Your task to perform on an android device: turn off javascript in the chrome app Image 0: 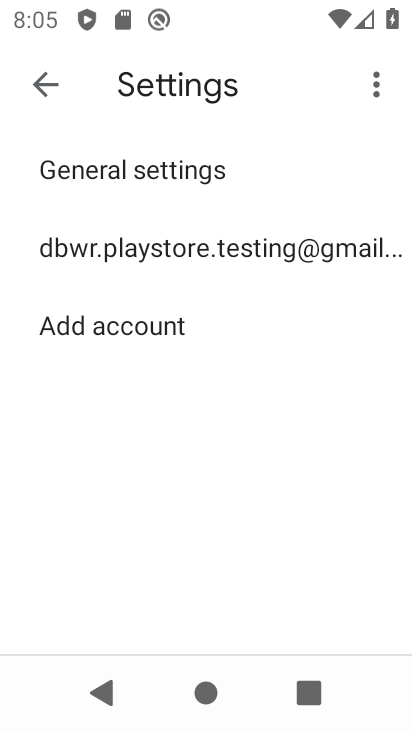
Step 0: click (35, 94)
Your task to perform on an android device: turn off javascript in the chrome app Image 1: 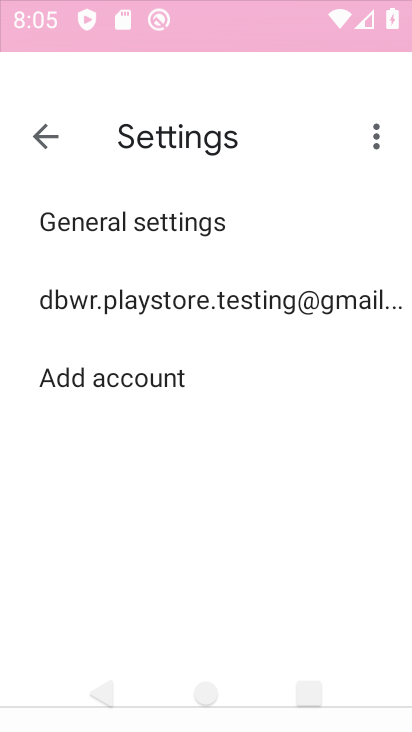
Step 1: click (47, 76)
Your task to perform on an android device: turn off javascript in the chrome app Image 2: 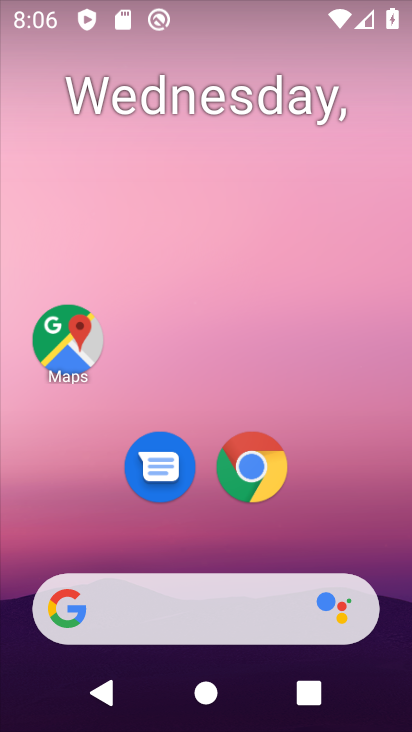
Step 2: drag from (378, 567) to (139, 0)
Your task to perform on an android device: turn off javascript in the chrome app Image 3: 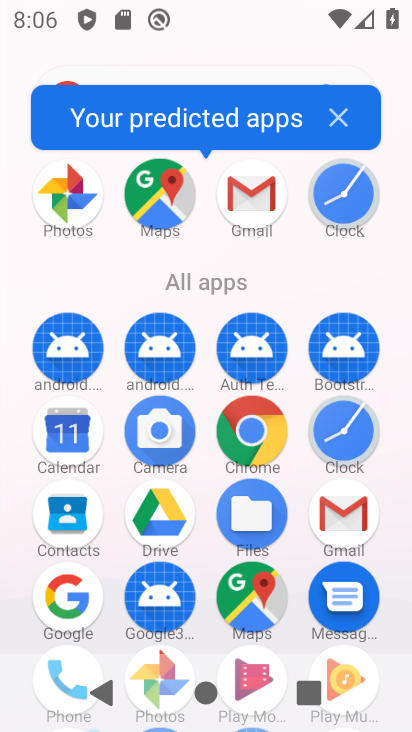
Step 3: click (248, 432)
Your task to perform on an android device: turn off javascript in the chrome app Image 4: 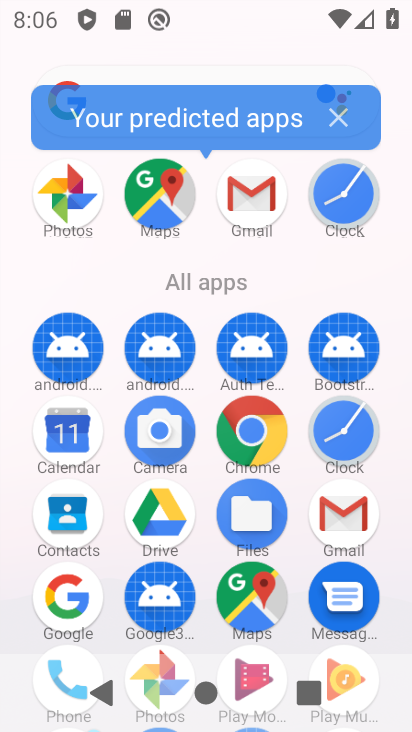
Step 4: click (248, 432)
Your task to perform on an android device: turn off javascript in the chrome app Image 5: 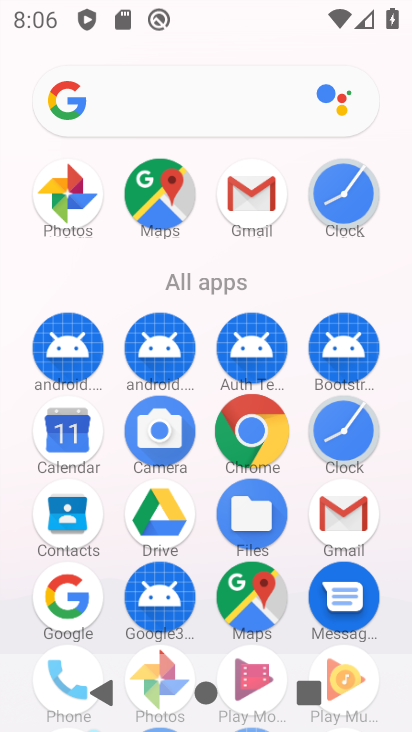
Step 5: click (248, 432)
Your task to perform on an android device: turn off javascript in the chrome app Image 6: 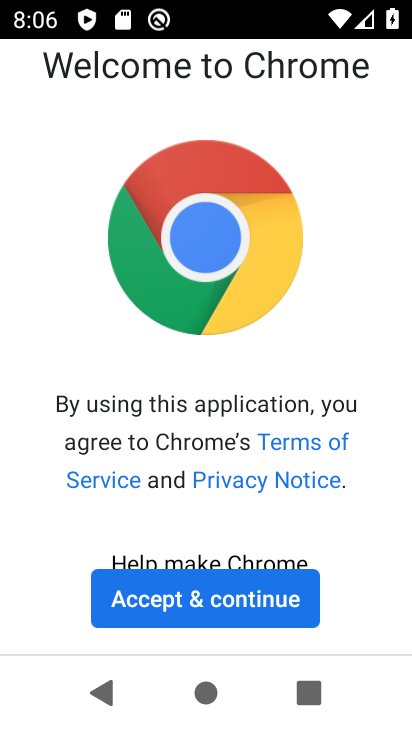
Step 6: click (203, 595)
Your task to perform on an android device: turn off javascript in the chrome app Image 7: 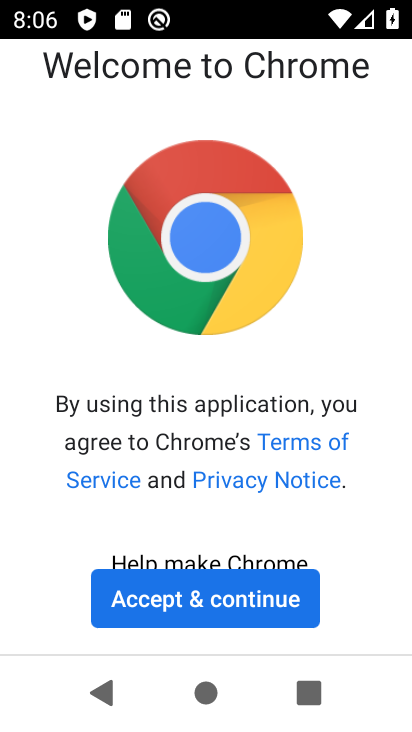
Step 7: click (203, 595)
Your task to perform on an android device: turn off javascript in the chrome app Image 8: 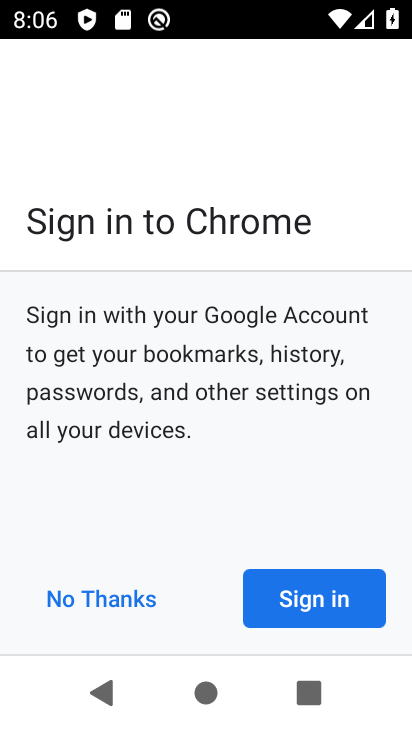
Step 8: click (203, 595)
Your task to perform on an android device: turn off javascript in the chrome app Image 9: 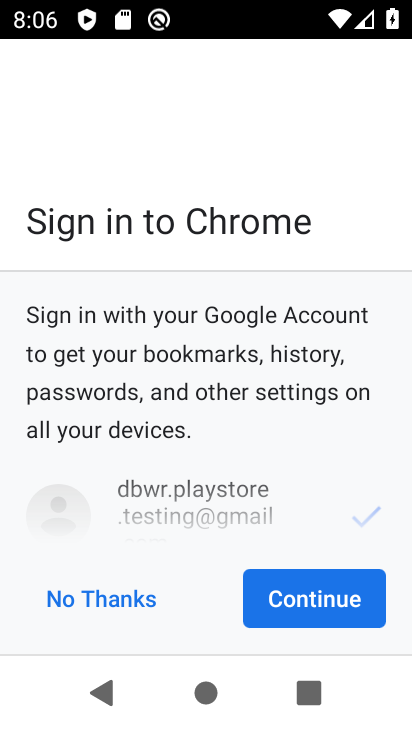
Step 9: click (203, 597)
Your task to perform on an android device: turn off javascript in the chrome app Image 10: 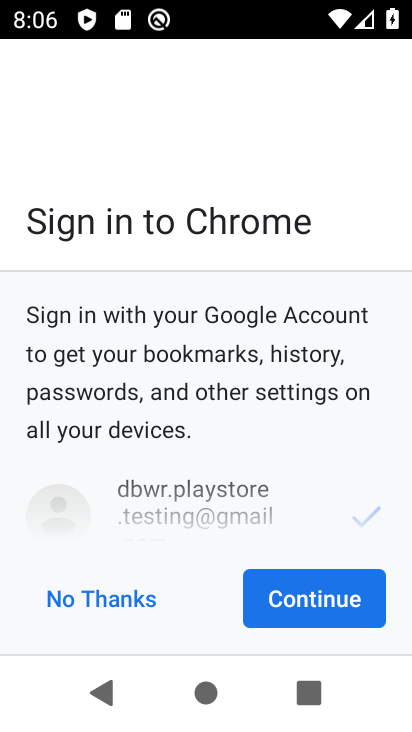
Step 10: click (330, 594)
Your task to perform on an android device: turn off javascript in the chrome app Image 11: 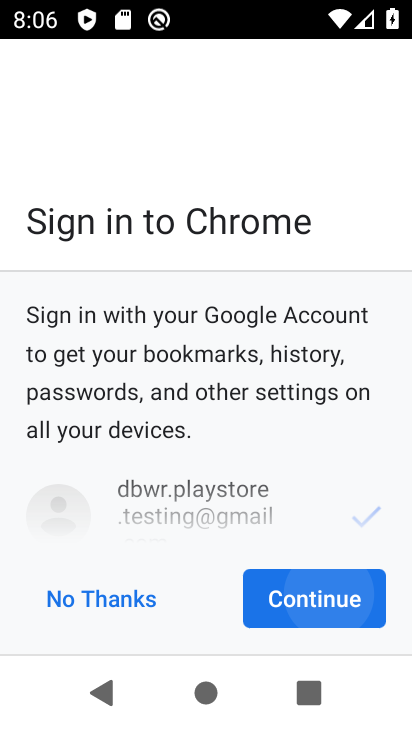
Step 11: click (330, 594)
Your task to perform on an android device: turn off javascript in the chrome app Image 12: 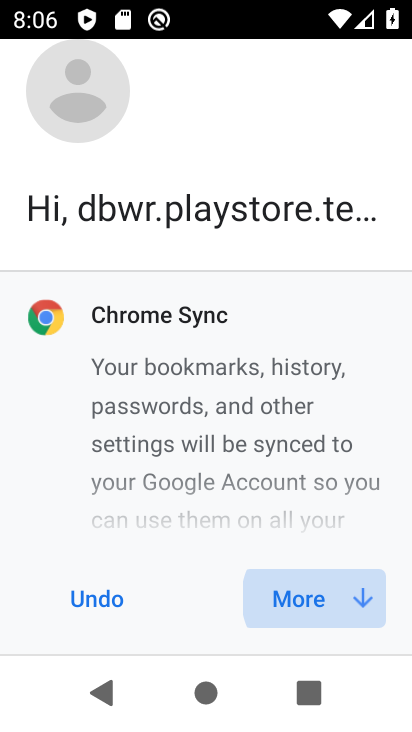
Step 12: click (330, 594)
Your task to perform on an android device: turn off javascript in the chrome app Image 13: 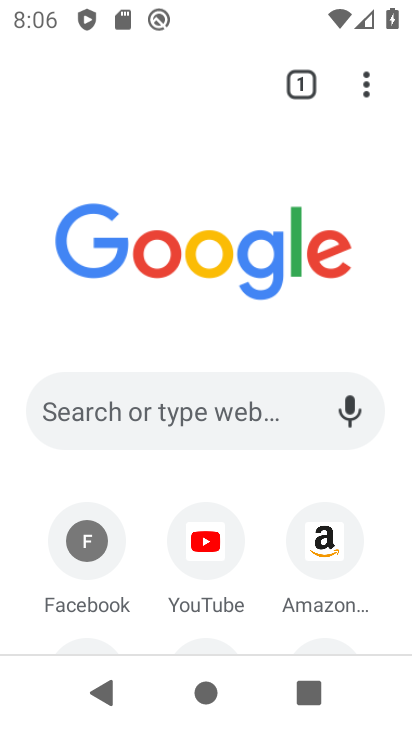
Step 13: drag from (367, 83) to (92, 522)
Your task to perform on an android device: turn off javascript in the chrome app Image 14: 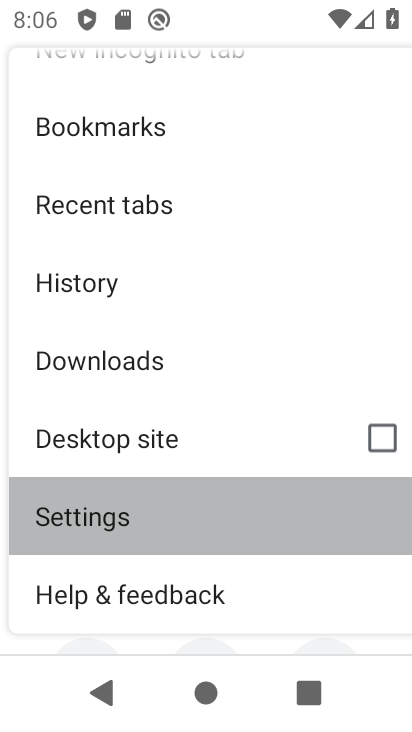
Step 14: click (92, 522)
Your task to perform on an android device: turn off javascript in the chrome app Image 15: 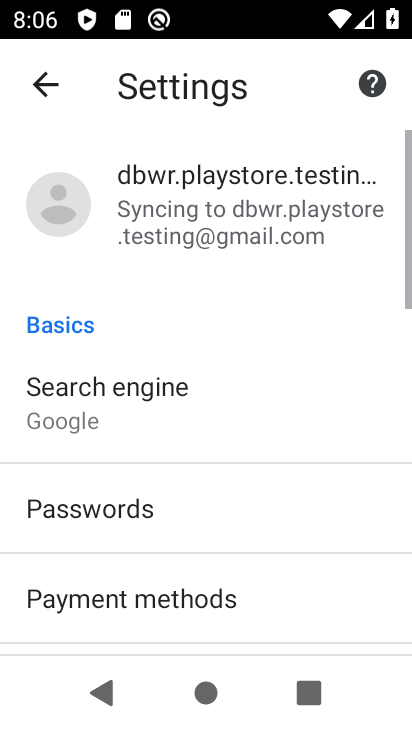
Step 15: drag from (174, 608) to (228, 13)
Your task to perform on an android device: turn off javascript in the chrome app Image 16: 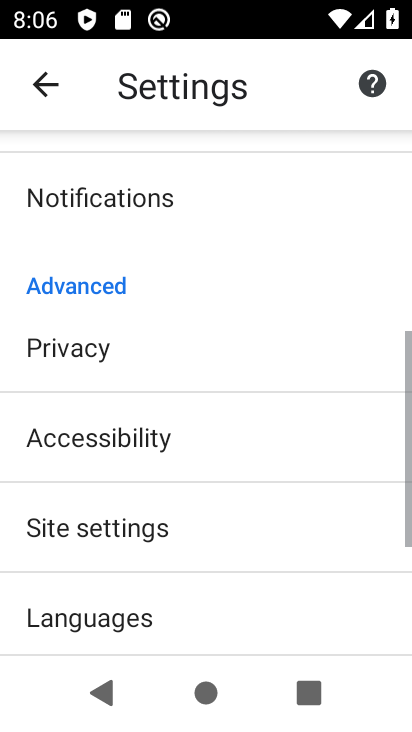
Step 16: drag from (176, 419) to (181, 16)
Your task to perform on an android device: turn off javascript in the chrome app Image 17: 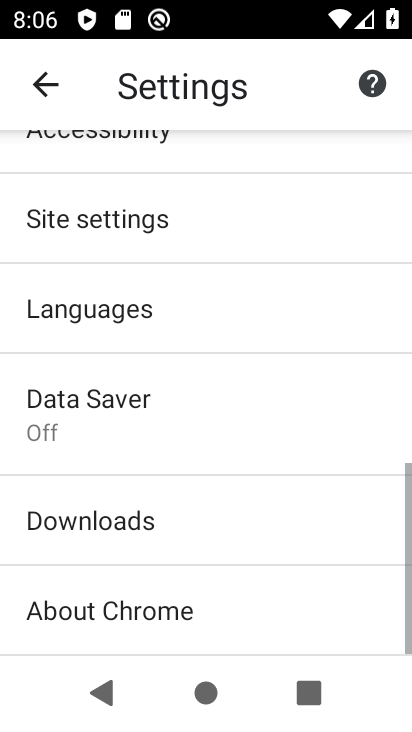
Step 17: drag from (203, 403) to (146, 10)
Your task to perform on an android device: turn off javascript in the chrome app Image 18: 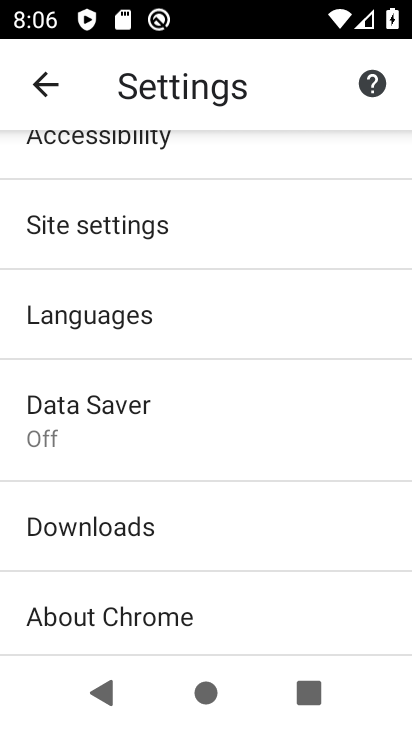
Step 18: click (82, 216)
Your task to perform on an android device: turn off javascript in the chrome app Image 19: 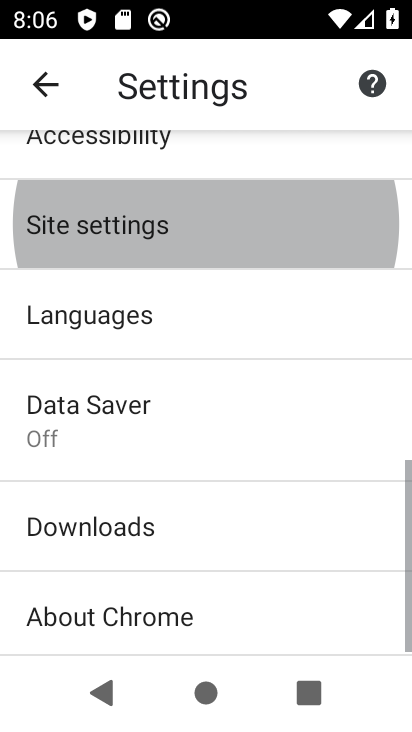
Step 19: click (82, 216)
Your task to perform on an android device: turn off javascript in the chrome app Image 20: 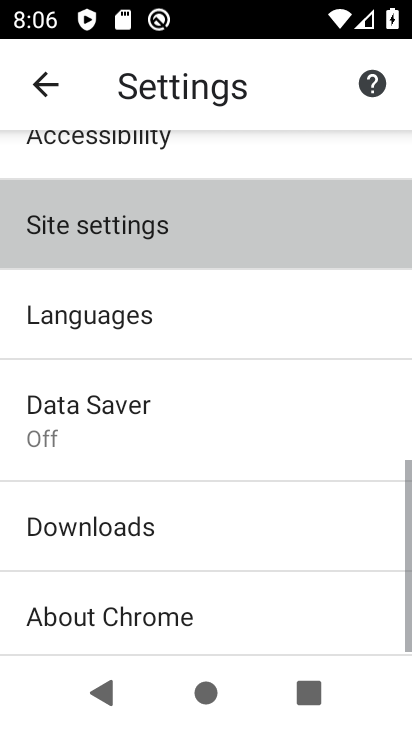
Step 20: click (82, 216)
Your task to perform on an android device: turn off javascript in the chrome app Image 21: 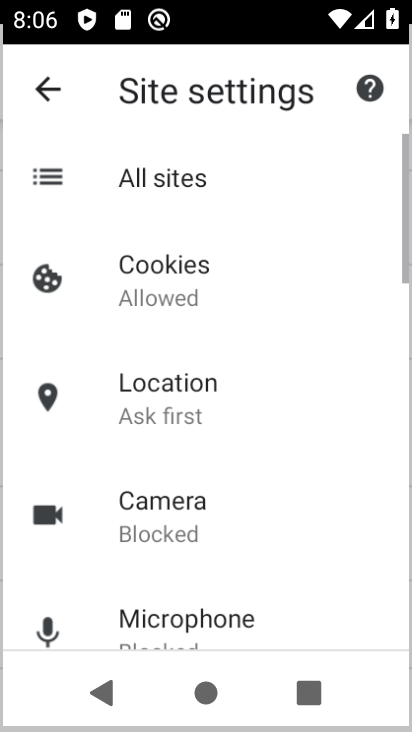
Step 21: click (83, 214)
Your task to perform on an android device: turn off javascript in the chrome app Image 22: 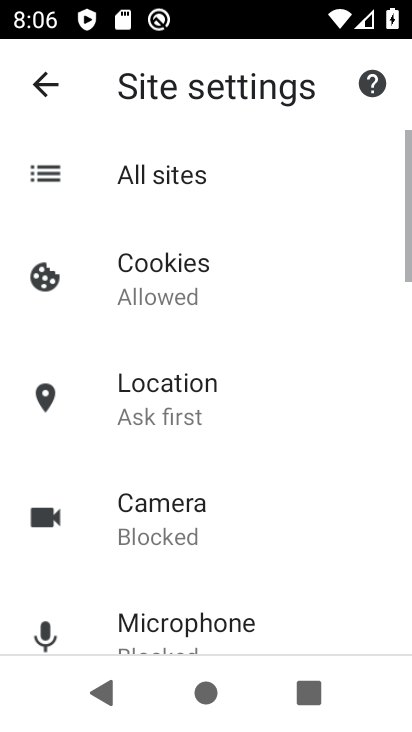
Step 22: click (83, 214)
Your task to perform on an android device: turn off javascript in the chrome app Image 23: 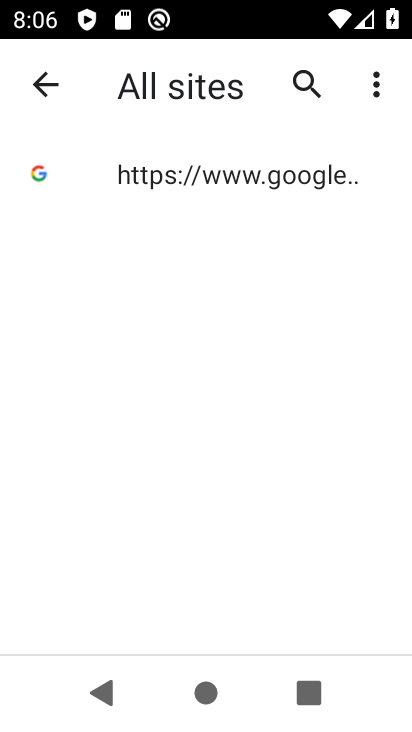
Step 23: click (43, 81)
Your task to perform on an android device: turn off javascript in the chrome app Image 24: 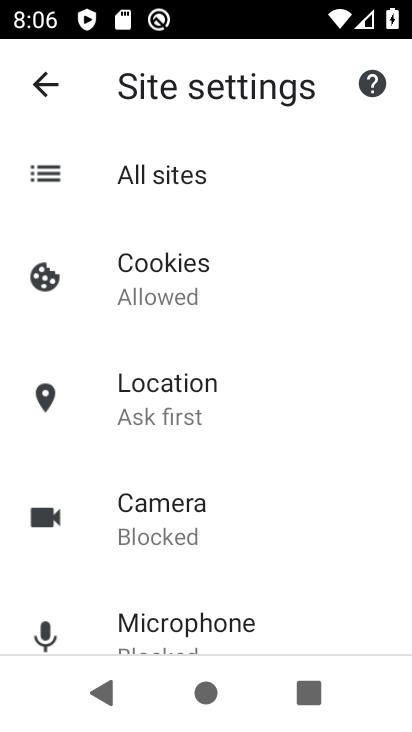
Step 24: drag from (176, 522) to (98, 176)
Your task to perform on an android device: turn off javascript in the chrome app Image 25: 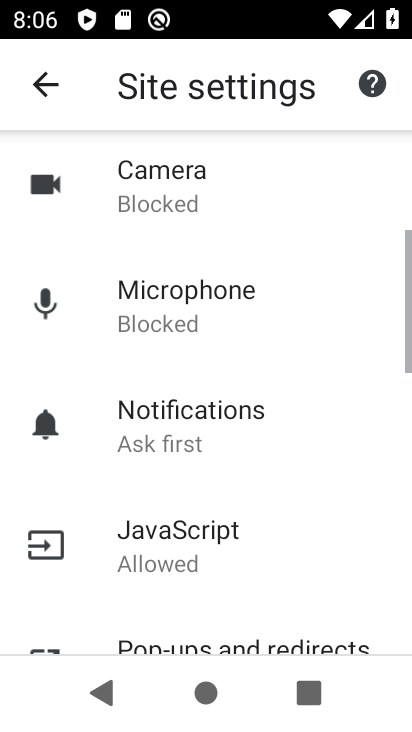
Step 25: drag from (176, 404) to (101, 74)
Your task to perform on an android device: turn off javascript in the chrome app Image 26: 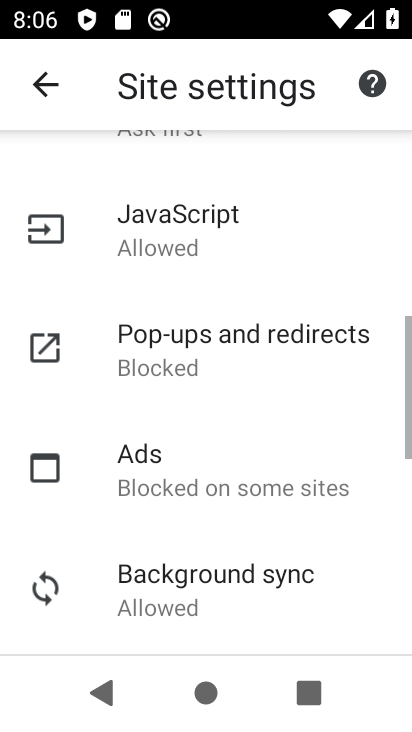
Step 26: drag from (200, 400) to (203, 107)
Your task to perform on an android device: turn off javascript in the chrome app Image 27: 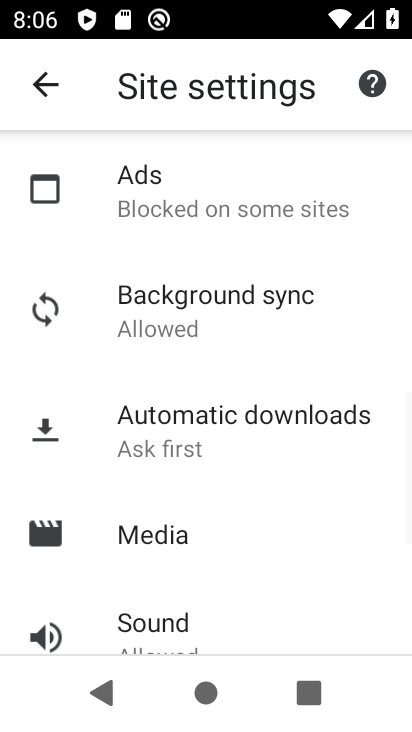
Step 27: drag from (201, 341) to (237, 691)
Your task to perform on an android device: turn off javascript in the chrome app Image 28: 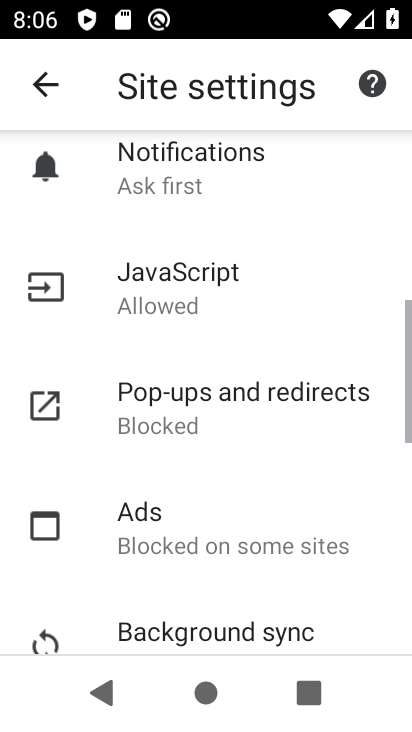
Step 28: drag from (266, 358) to (305, 566)
Your task to perform on an android device: turn off javascript in the chrome app Image 29: 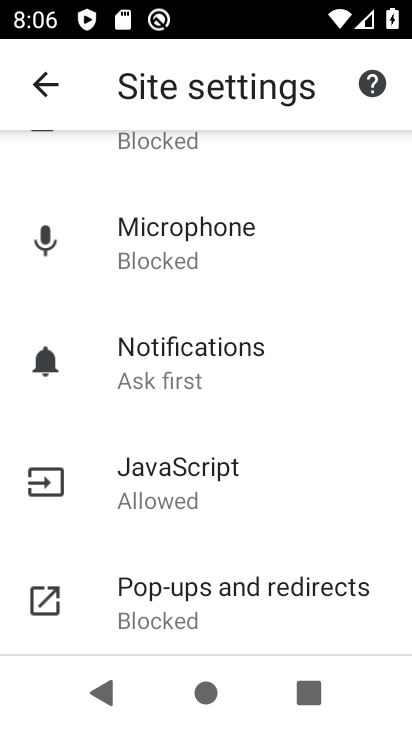
Step 29: click (167, 477)
Your task to perform on an android device: turn off javascript in the chrome app Image 30: 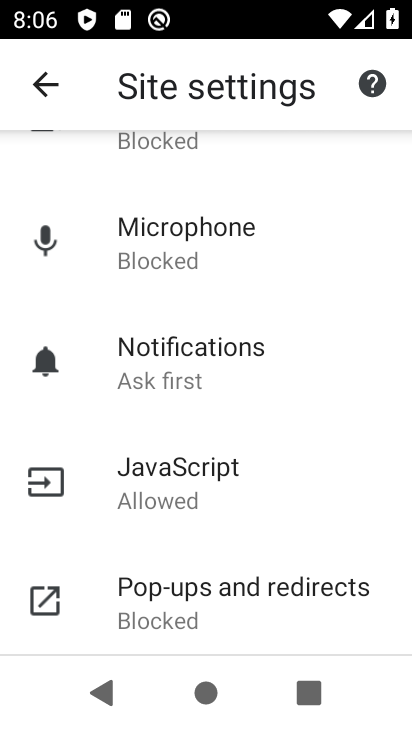
Step 30: click (167, 477)
Your task to perform on an android device: turn off javascript in the chrome app Image 31: 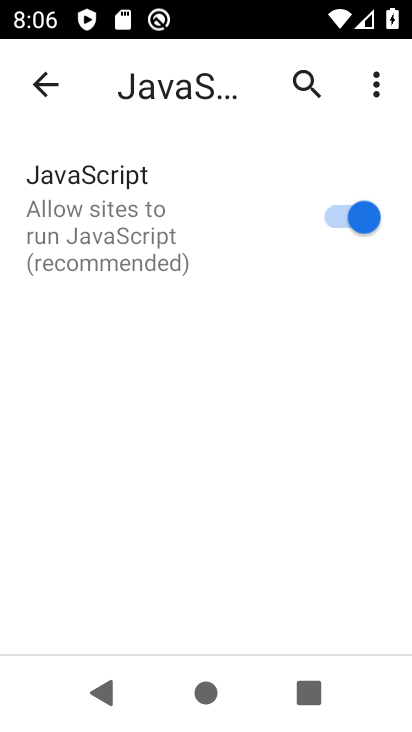
Step 31: click (356, 210)
Your task to perform on an android device: turn off javascript in the chrome app Image 32: 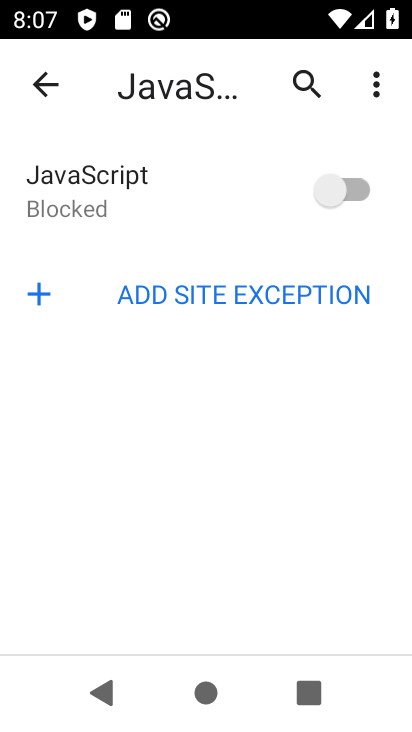
Step 32: task complete